Your task to perform on an android device: Open Youtube and go to the subscriptions tab Image 0: 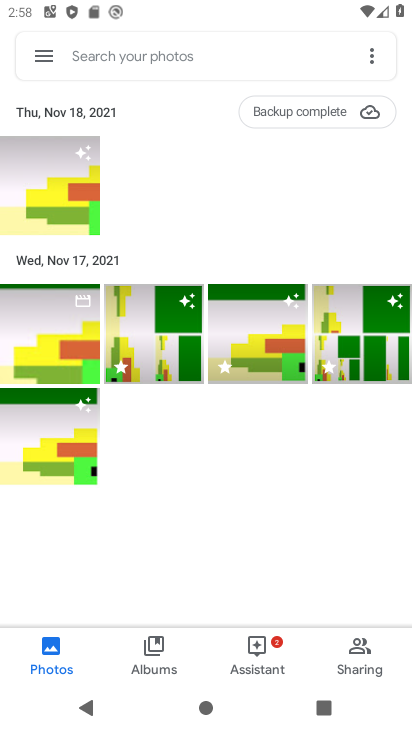
Step 0: press home button
Your task to perform on an android device: Open Youtube and go to the subscriptions tab Image 1: 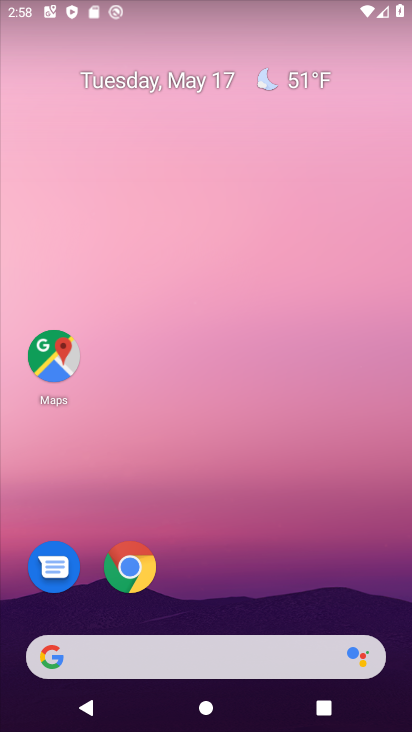
Step 1: drag from (207, 645) to (201, 18)
Your task to perform on an android device: Open Youtube and go to the subscriptions tab Image 2: 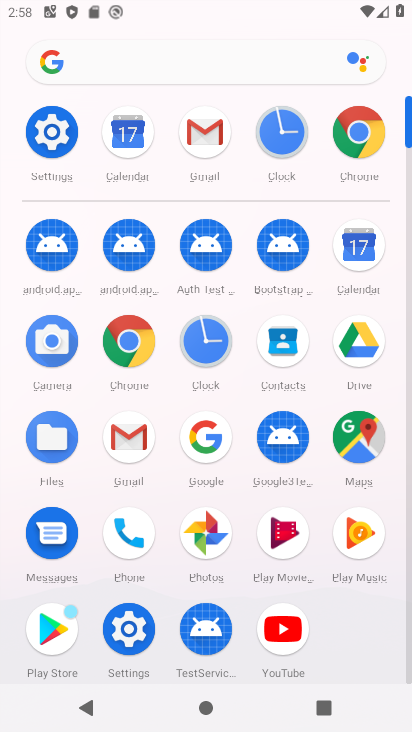
Step 2: click (285, 644)
Your task to perform on an android device: Open Youtube and go to the subscriptions tab Image 3: 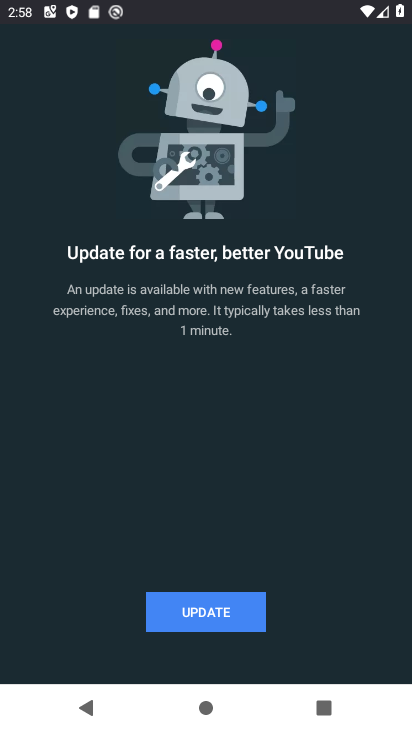
Step 3: click (195, 611)
Your task to perform on an android device: Open Youtube and go to the subscriptions tab Image 4: 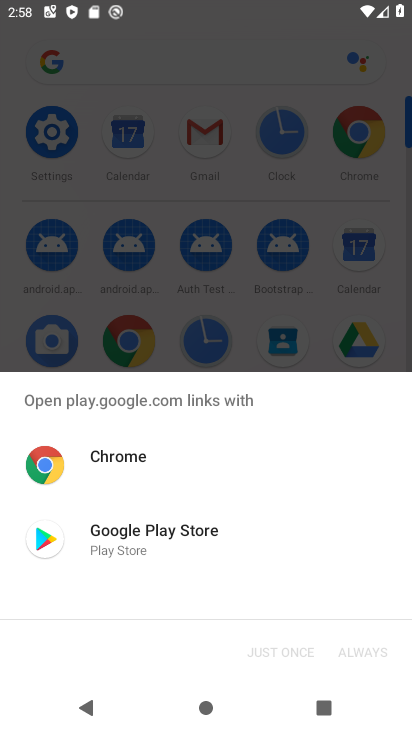
Step 4: click (184, 559)
Your task to perform on an android device: Open Youtube and go to the subscriptions tab Image 5: 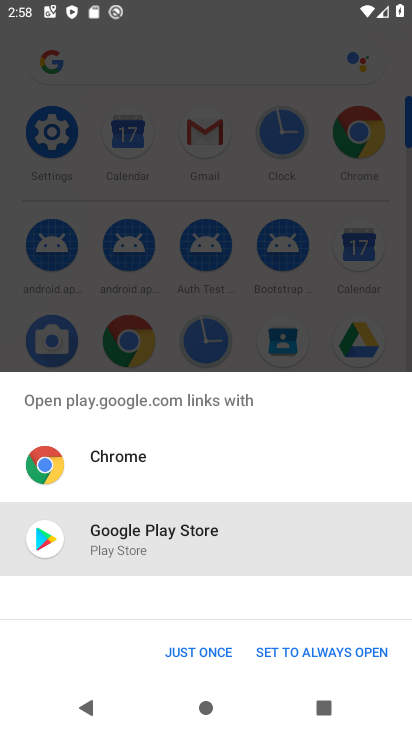
Step 5: click (203, 661)
Your task to perform on an android device: Open Youtube and go to the subscriptions tab Image 6: 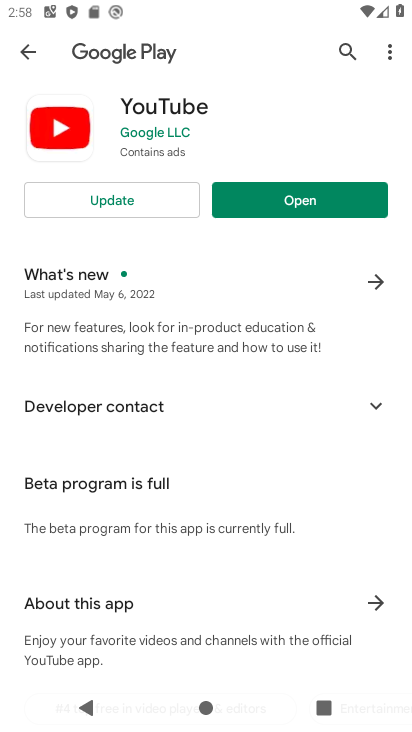
Step 6: click (148, 208)
Your task to perform on an android device: Open Youtube and go to the subscriptions tab Image 7: 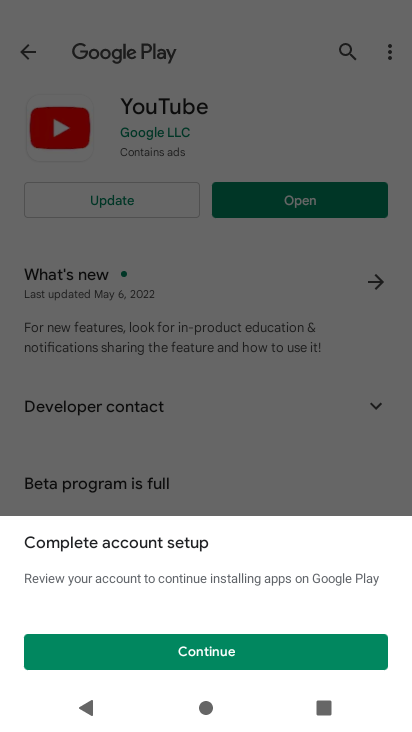
Step 7: click (163, 644)
Your task to perform on an android device: Open Youtube and go to the subscriptions tab Image 8: 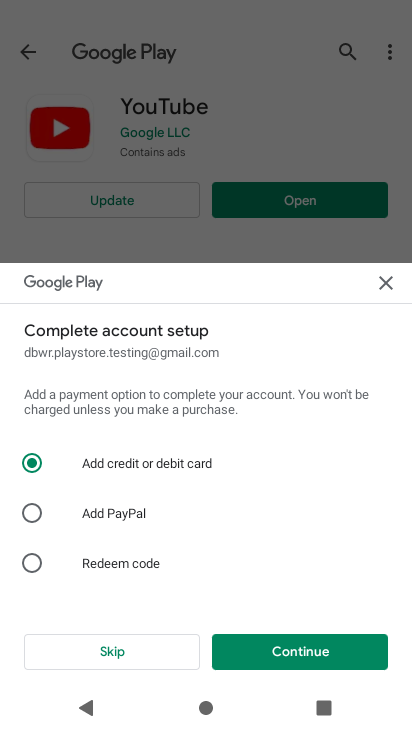
Step 8: click (180, 640)
Your task to perform on an android device: Open Youtube and go to the subscriptions tab Image 9: 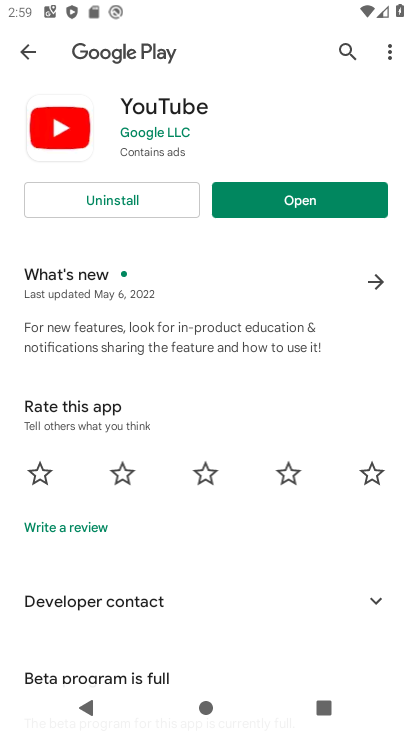
Step 9: click (297, 200)
Your task to perform on an android device: Open Youtube and go to the subscriptions tab Image 10: 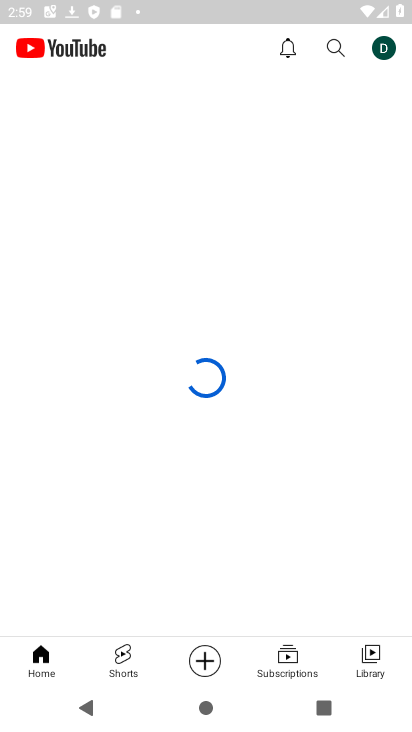
Step 10: click (294, 659)
Your task to perform on an android device: Open Youtube and go to the subscriptions tab Image 11: 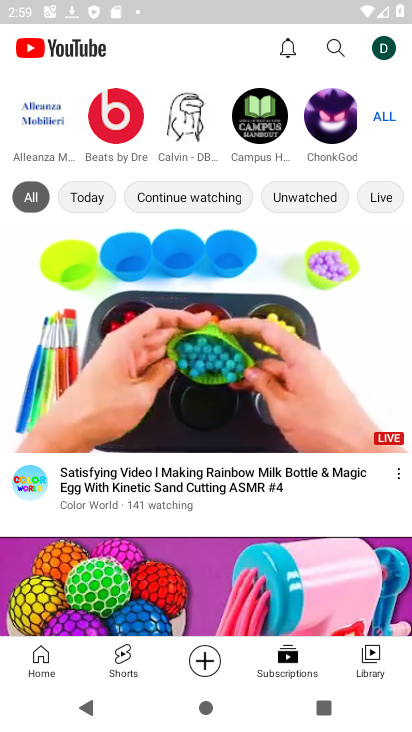
Step 11: task complete